Your task to perform on an android device: Open calendar and show me the third week of next month Image 0: 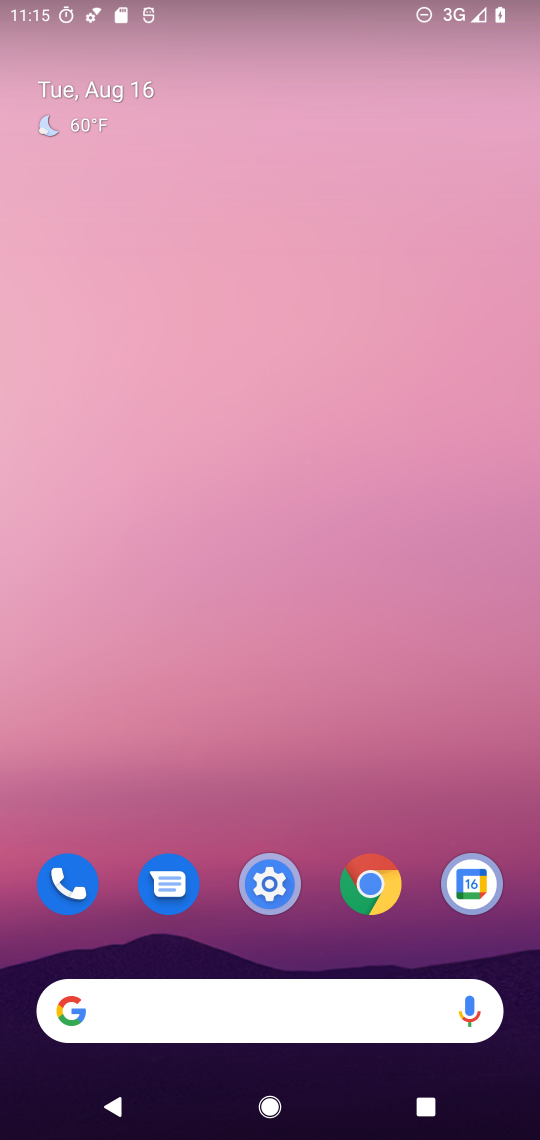
Step 0: drag from (259, 950) to (270, 199)
Your task to perform on an android device: Open calendar and show me the third week of next month Image 1: 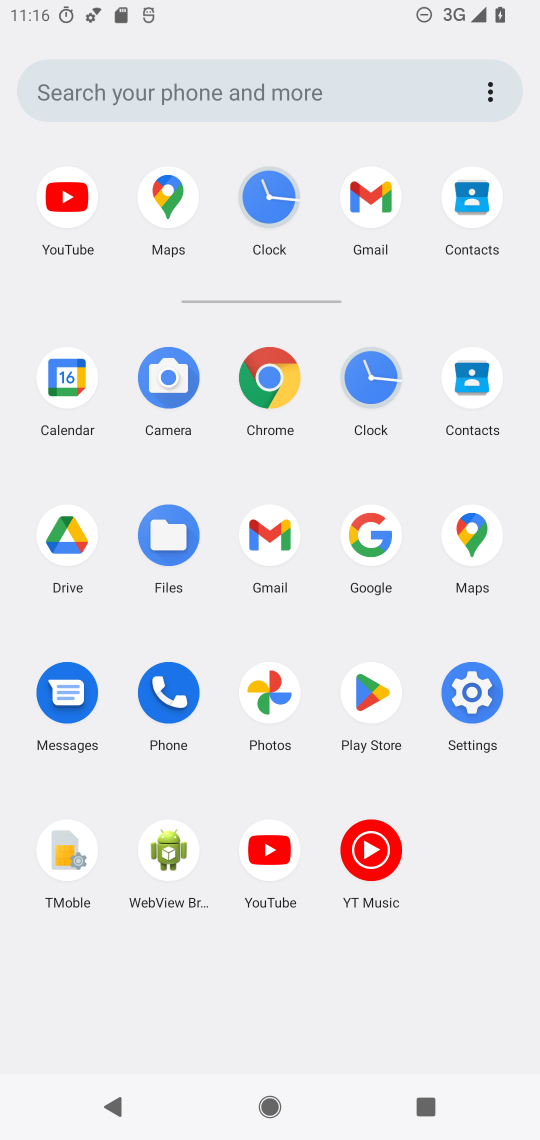
Step 1: click (58, 383)
Your task to perform on an android device: Open calendar and show me the third week of next month Image 2: 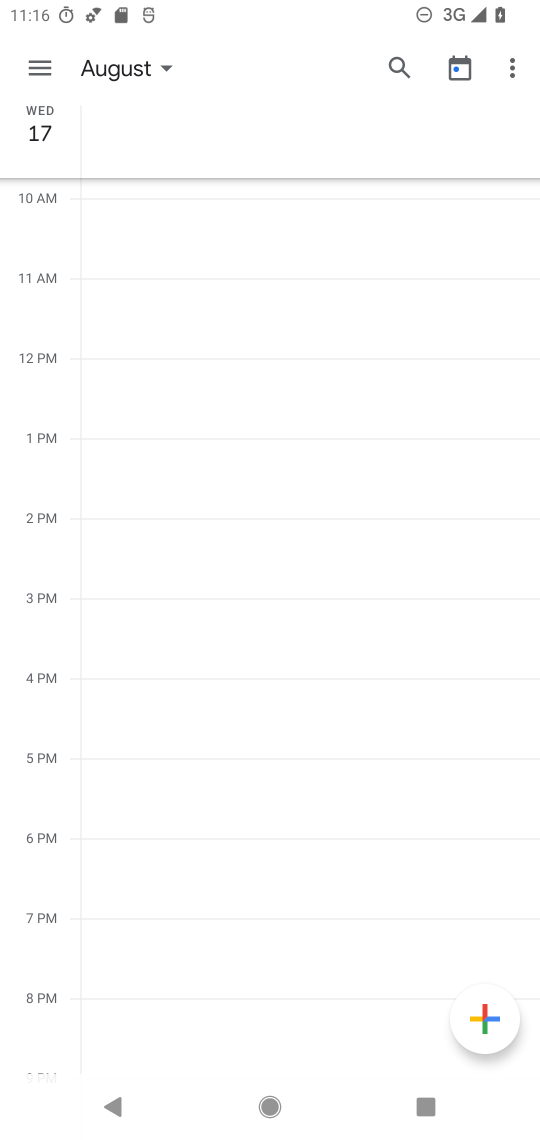
Step 2: click (40, 78)
Your task to perform on an android device: Open calendar and show me the third week of next month Image 3: 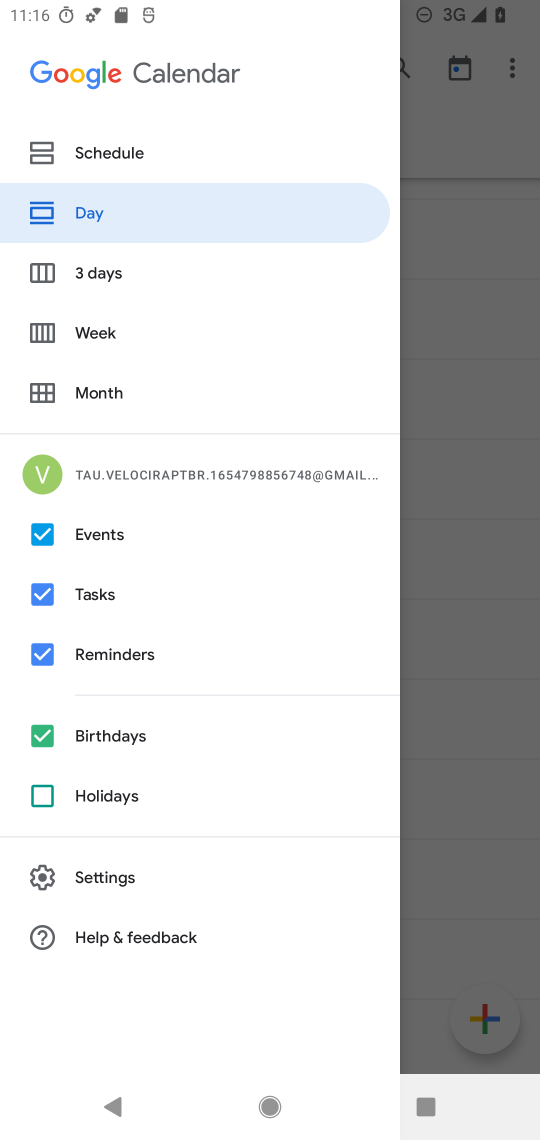
Step 3: click (84, 327)
Your task to perform on an android device: Open calendar and show me the third week of next month Image 4: 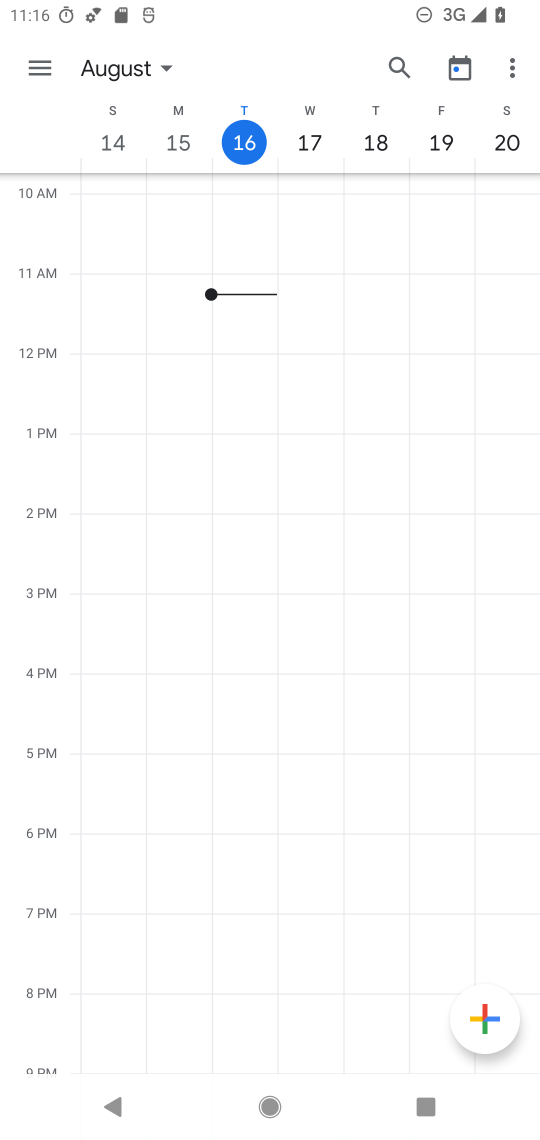
Step 4: click (129, 74)
Your task to perform on an android device: Open calendar and show me the third week of next month Image 5: 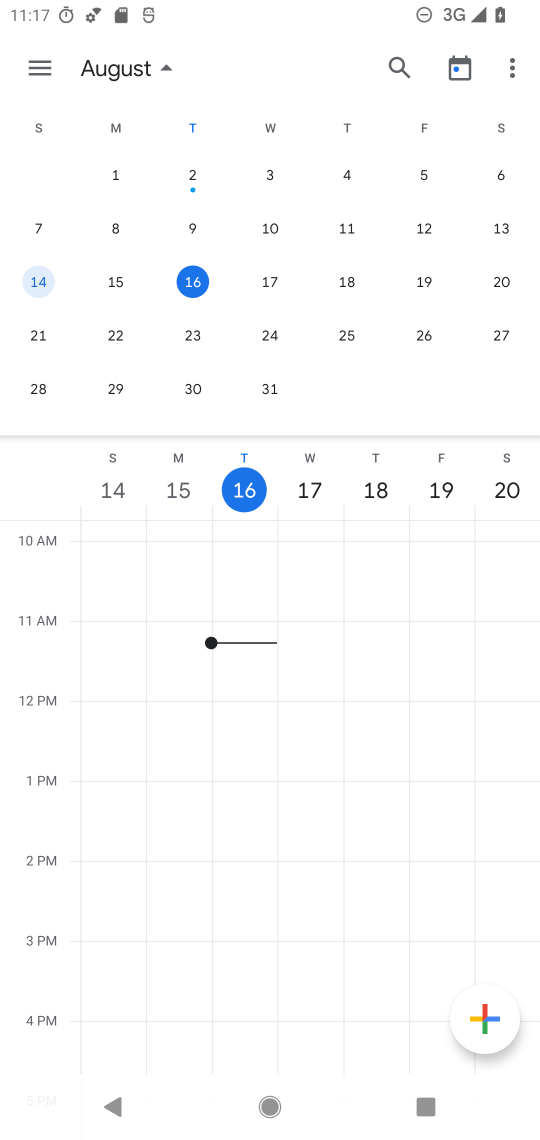
Step 5: drag from (465, 275) to (19, 224)
Your task to perform on an android device: Open calendar and show me the third week of next month Image 6: 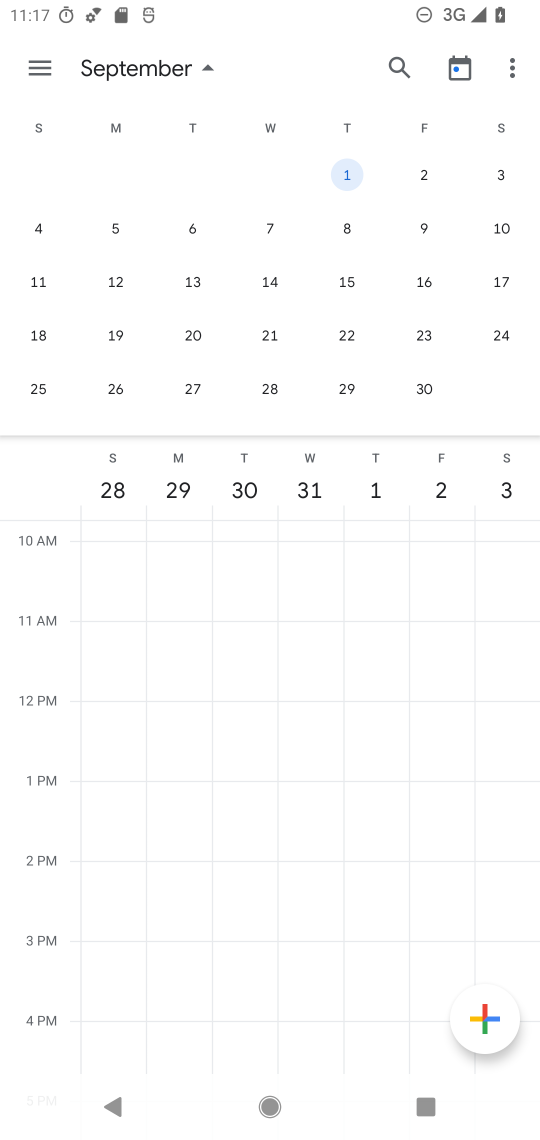
Step 6: click (25, 286)
Your task to perform on an android device: Open calendar and show me the third week of next month Image 7: 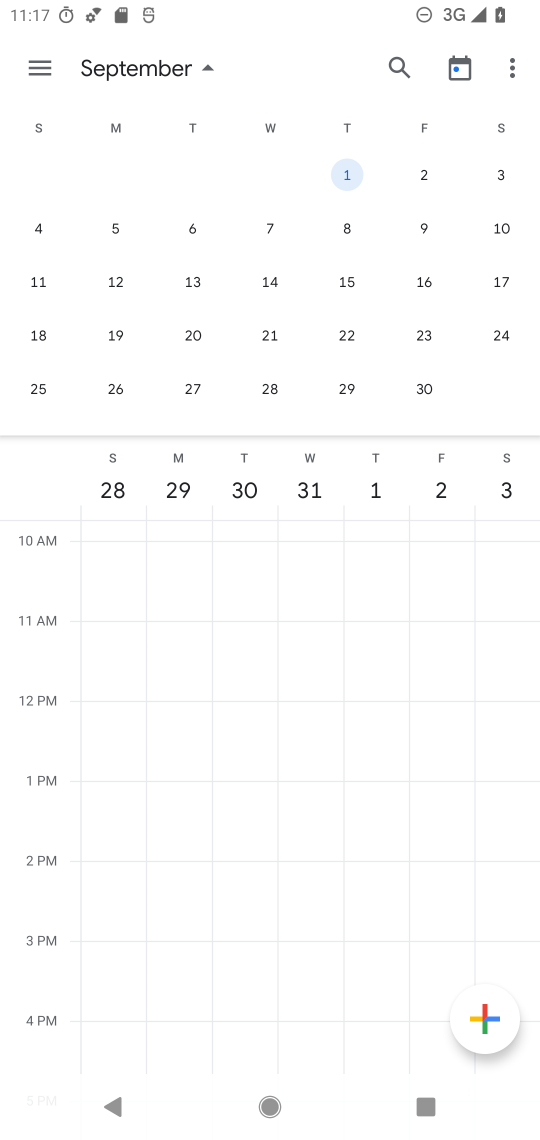
Step 7: click (40, 285)
Your task to perform on an android device: Open calendar and show me the third week of next month Image 8: 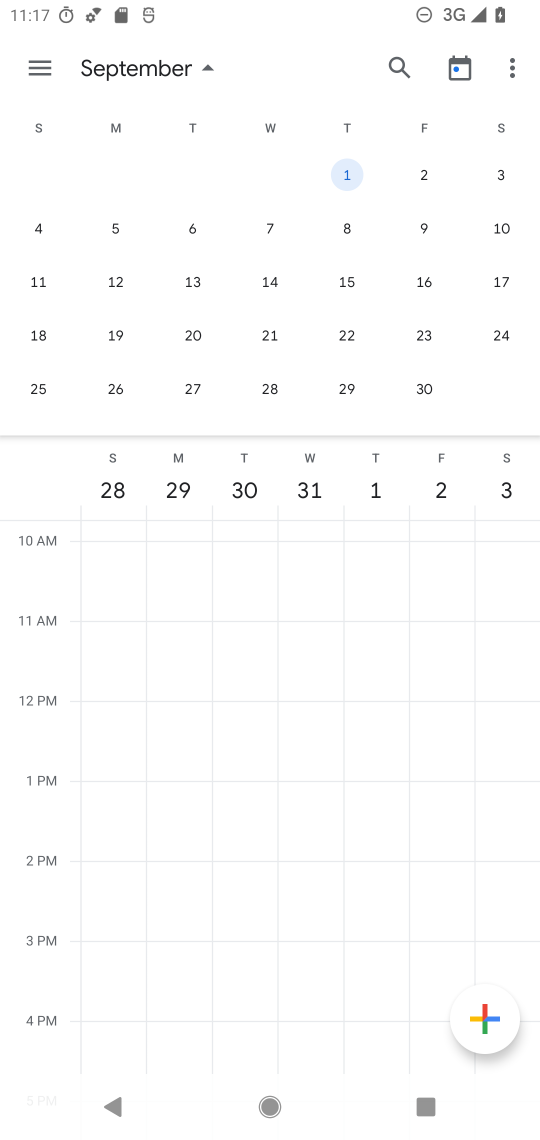
Step 8: click (40, 285)
Your task to perform on an android device: Open calendar and show me the third week of next month Image 9: 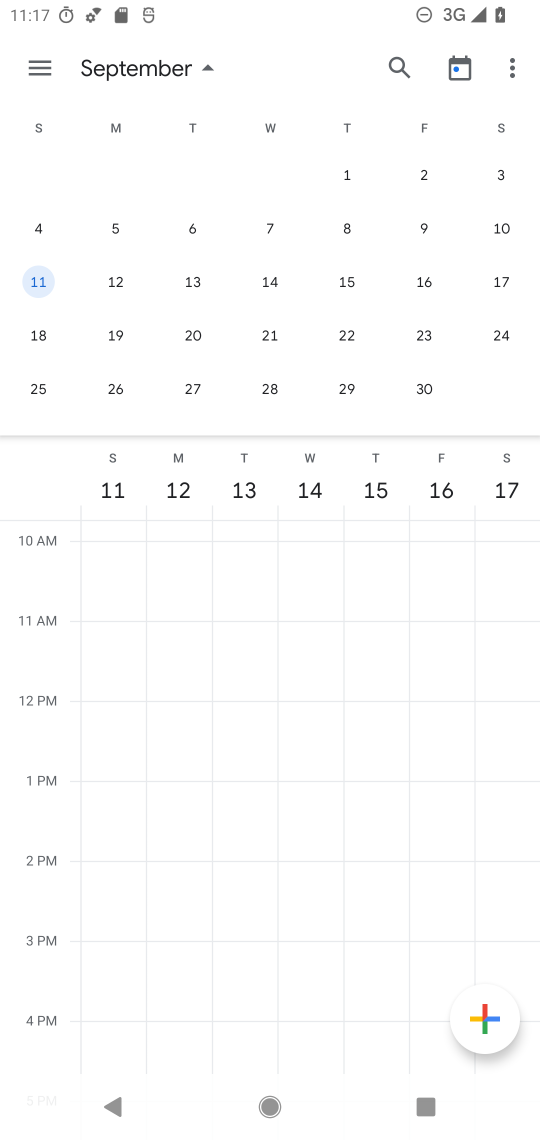
Step 9: task complete